Your task to perform on an android device: What's the weather going to be tomorrow? Image 0: 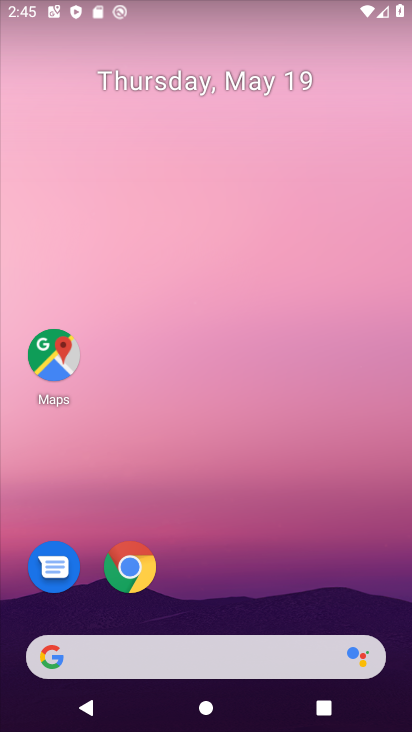
Step 0: drag from (260, 722) to (260, 558)
Your task to perform on an android device: What's the weather going to be tomorrow? Image 1: 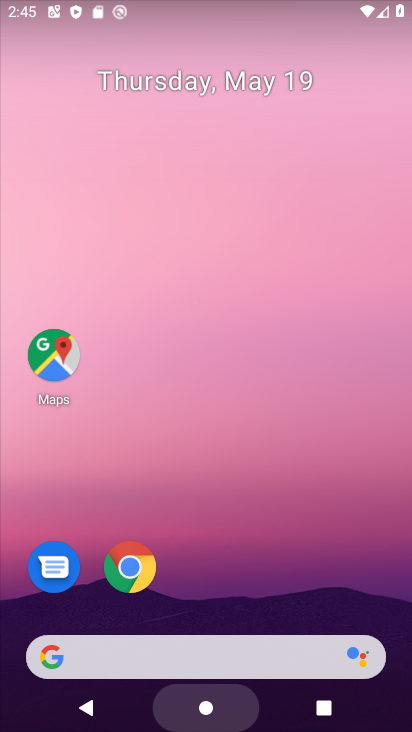
Step 1: click (261, 28)
Your task to perform on an android device: What's the weather going to be tomorrow? Image 2: 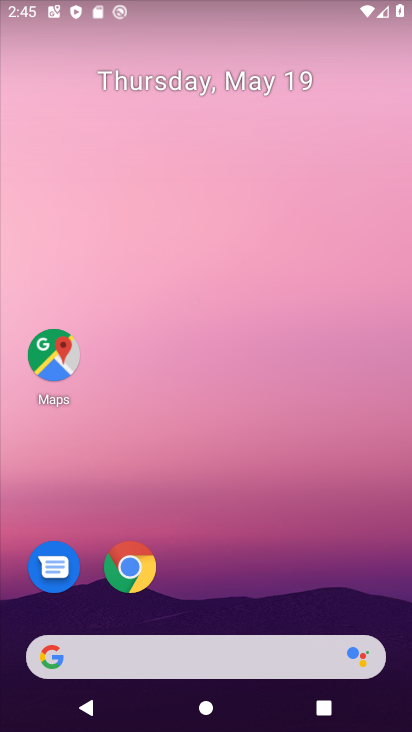
Step 2: drag from (239, 718) to (215, 145)
Your task to perform on an android device: What's the weather going to be tomorrow? Image 3: 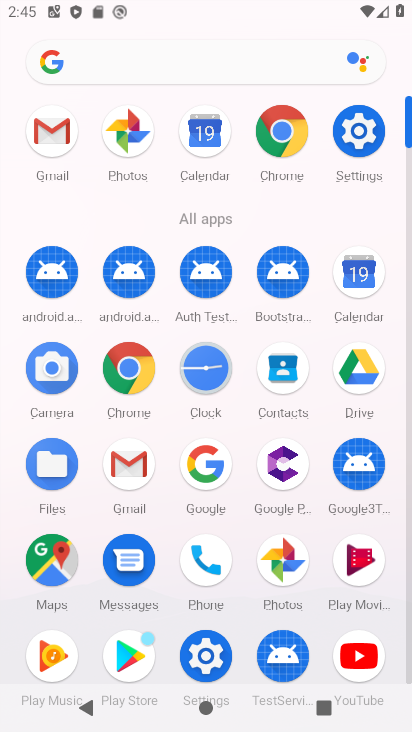
Step 3: click (216, 467)
Your task to perform on an android device: What's the weather going to be tomorrow? Image 4: 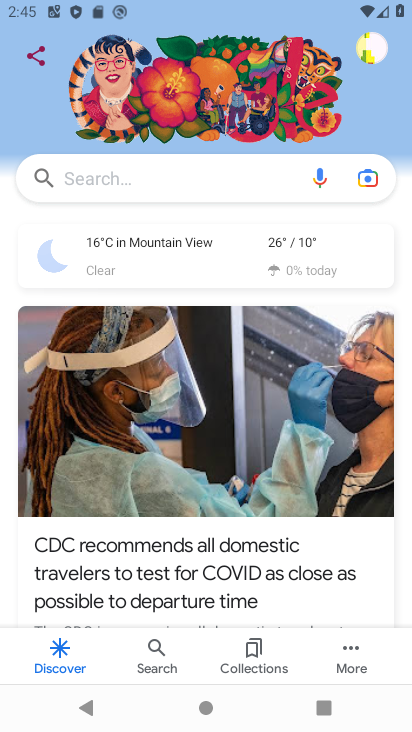
Step 4: click (205, 256)
Your task to perform on an android device: What's the weather going to be tomorrow? Image 5: 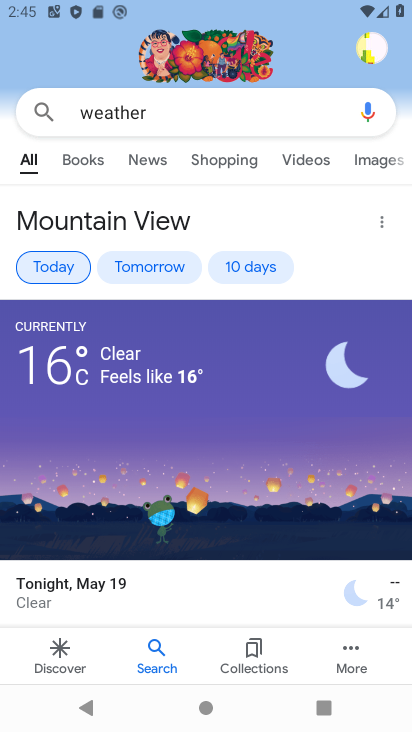
Step 5: click (170, 260)
Your task to perform on an android device: What's the weather going to be tomorrow? Image 6: 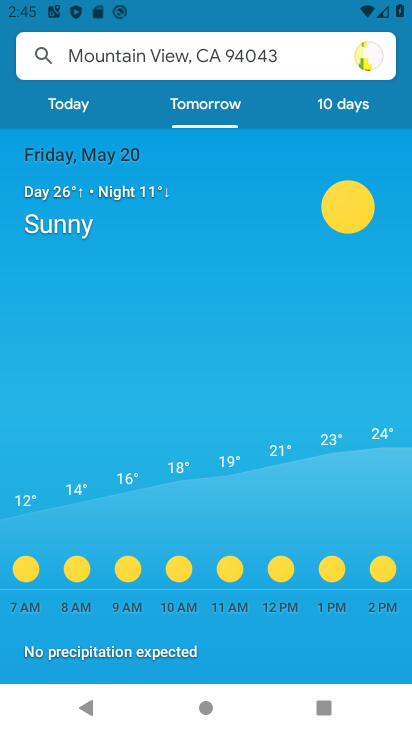
Step 6: task complete